Your task to perform on an android device: make emails show in primary in the gmail app Image 0: 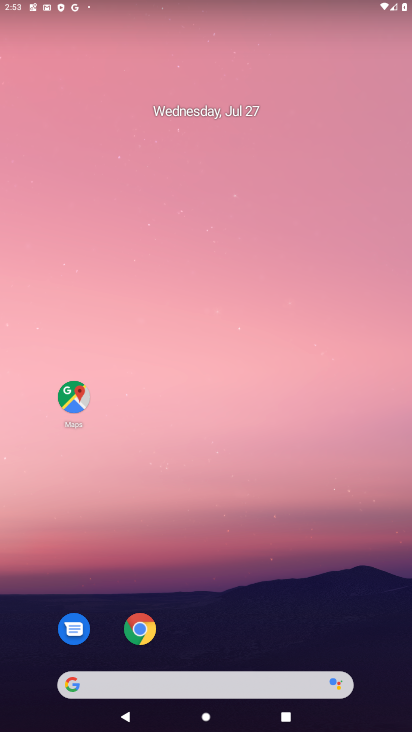
Step 0: drag from (290, 612) to (224, 101)
Your task to perform on an android device: make emails show in primary in the gmail app Image 1: 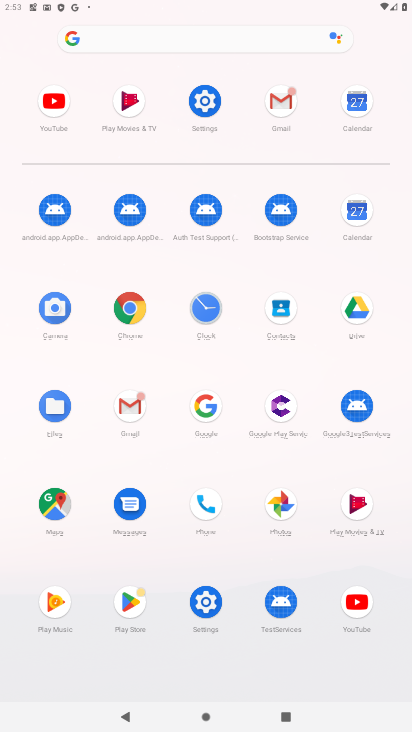
Step 1: click (270, 97)
Your task to perform on an android device: make emails show in primary in the gmail app Image 2: 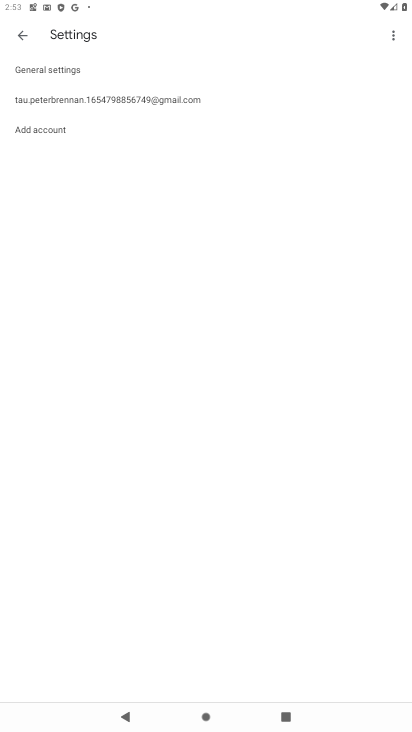
Step 2: task complete